Your task to perform on an android device: change the clock display to show seconds Image 0: 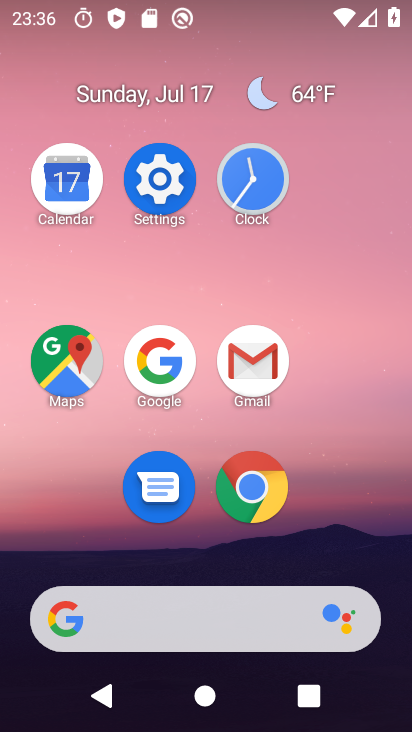
Step 0: click (252, 187)
Your task to perform on an android device: change the clock display to show seconds Image 1: 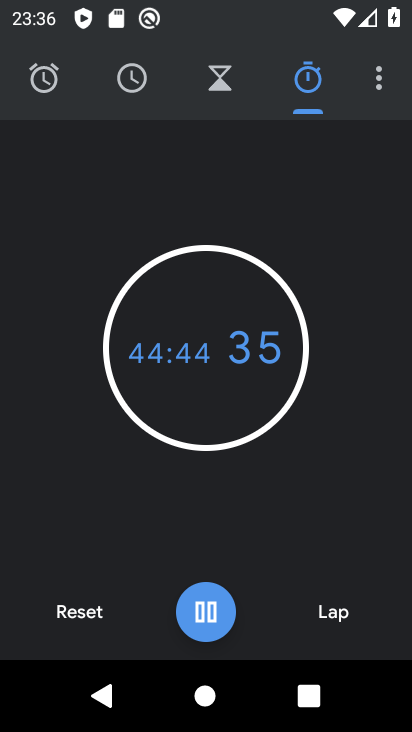
Step 1: click (381, 75)
Your task to perform on an android device: change the clock display to show seconds Image 2: 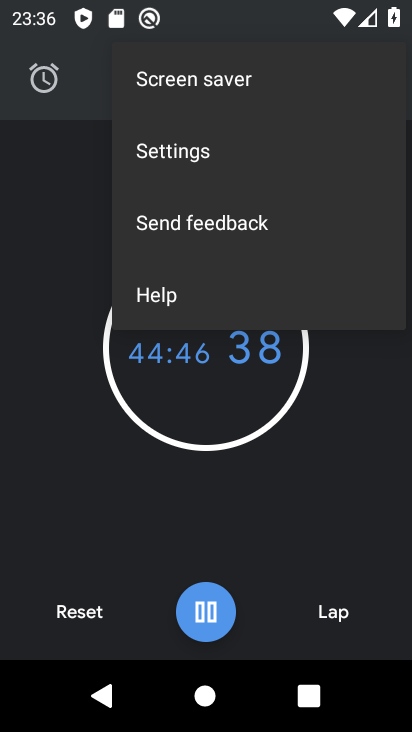
Step 2: click (230, 130)
Your task to perform on an android device: change the clock display to show seconds Image 3: 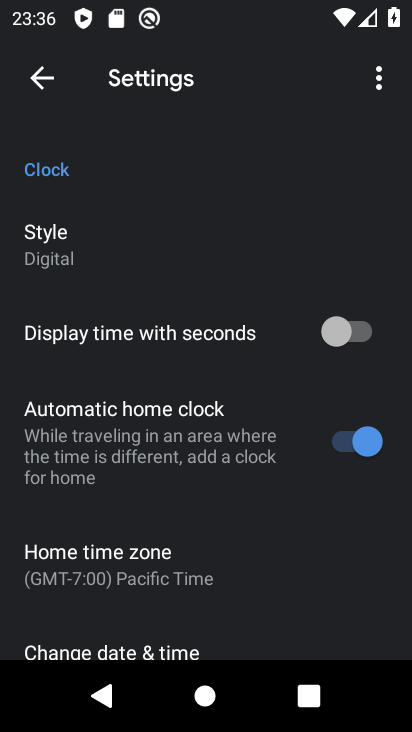
Step 3: click (344, 317)
Your task to perform on an android device: change the clock display to show seconds Image 4: 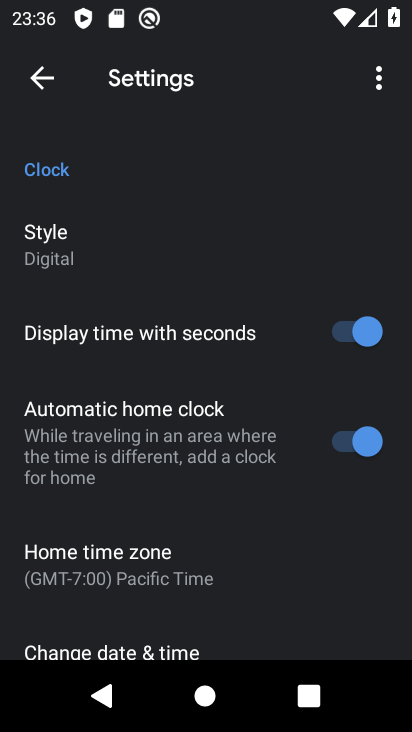
Step 4: task complete